Your task to perform on an android device: toggle sleep mode Image 0: 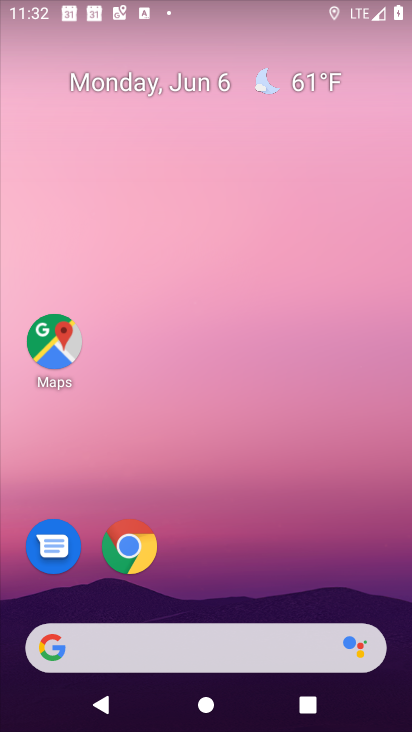
Step 0: drag from (392, 610) to (332, 41)
Your task to perform on an android device: toggle sleep mode Image 1: 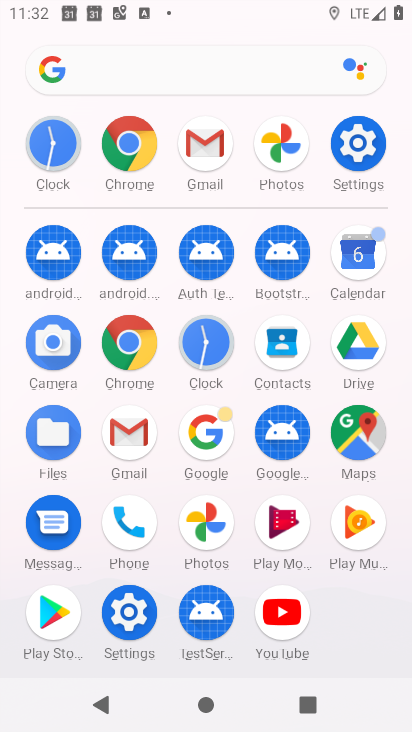
Step 1: click (131, 610)
Your task to perform on an android device: toggle sleep mode Image 2: 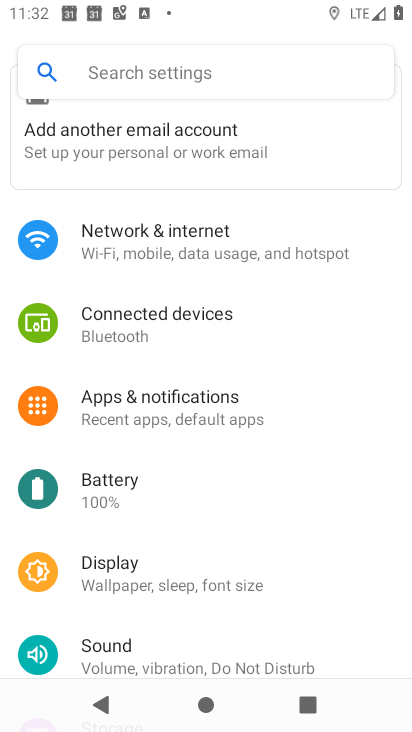
Step 2: click (118, 563)
Your task to perform on an android device: toggle sleep mode Image 3: 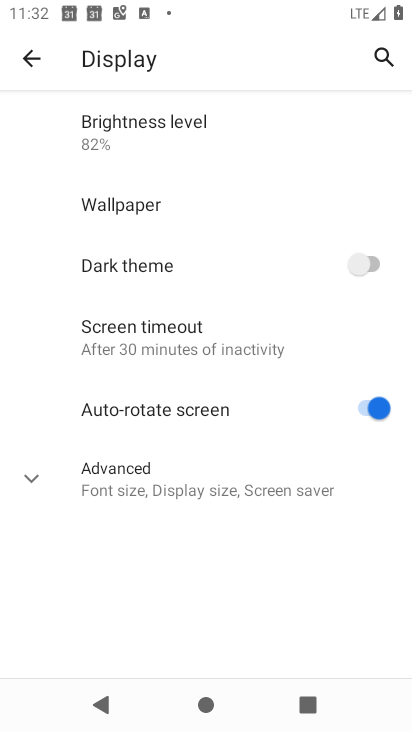
Step 3: click (33, 479)
Your task to perform on an android device: toggle sleep mode Image 4: 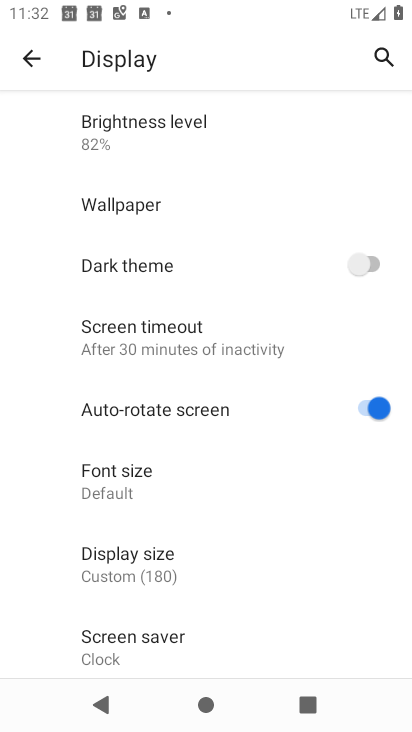
Step 4: task complete